Your task to perform on an android device: read, delete, or share a saved page in the chrome app Image 0: 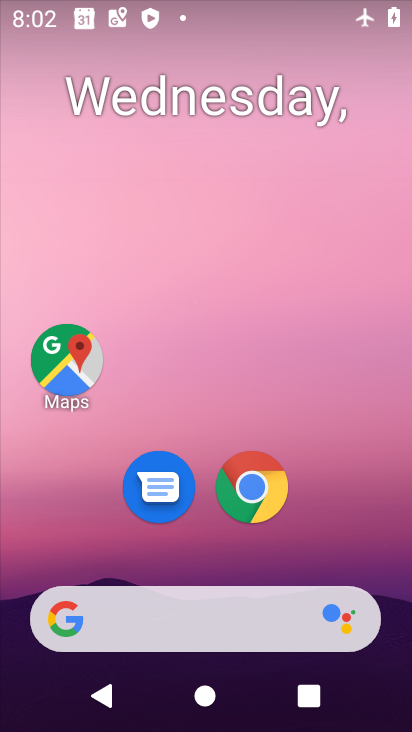
Step 0: click (250, 500)
Your task to perform on an android device: read, delete, or share a saved page in the chrome app Image 1: 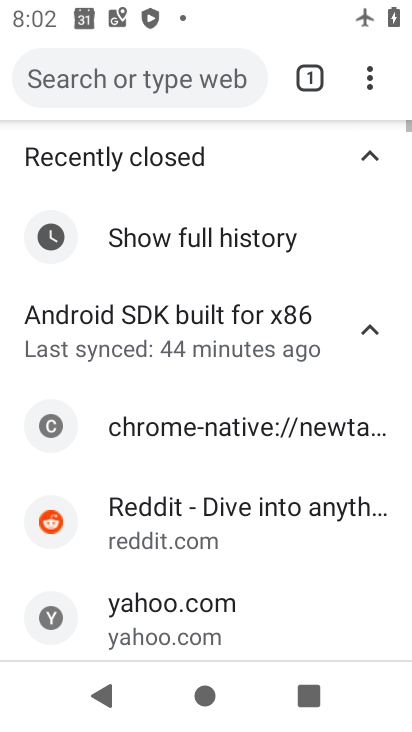
Step 1: click (374, 79)
Your task to perform on an android device: read, delete, or share a saved page in the chrome app Image 2: 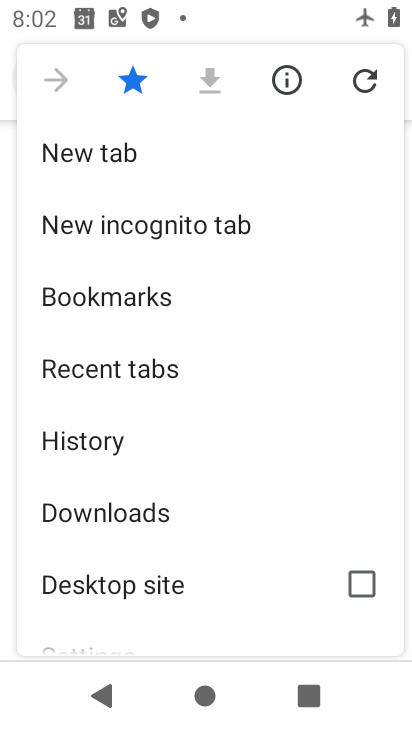
Step 2: click (122, 512)
Your task to perform on an android device: read, delete, or share a saved page in the chrome app Image 3: 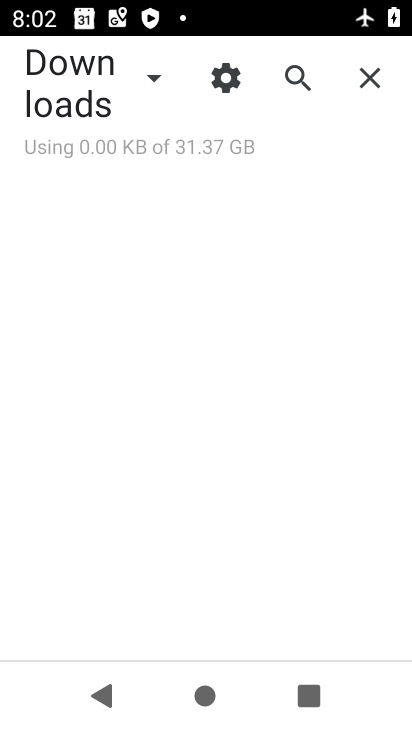
Step 3: click (161, 80)
Your task to perform on an android device: read, delete, or share a saved page in the chrome app Image 4: 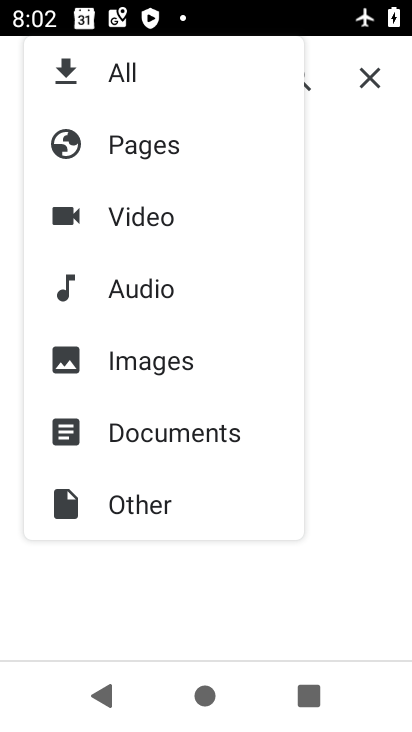
Step 4: click (128, 146)
Your task to perform on an android device: read, delete, or share a saved page in the chrome app Image 5: 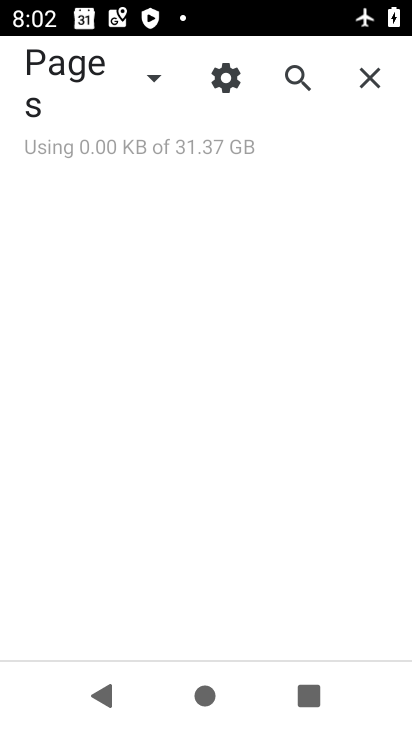
Step 5: task complete